Your task to perform on an android device: Show the shopping cart on walmart.com. Add usb-a to the cart on walmart.com, then select checkout. Image 0: 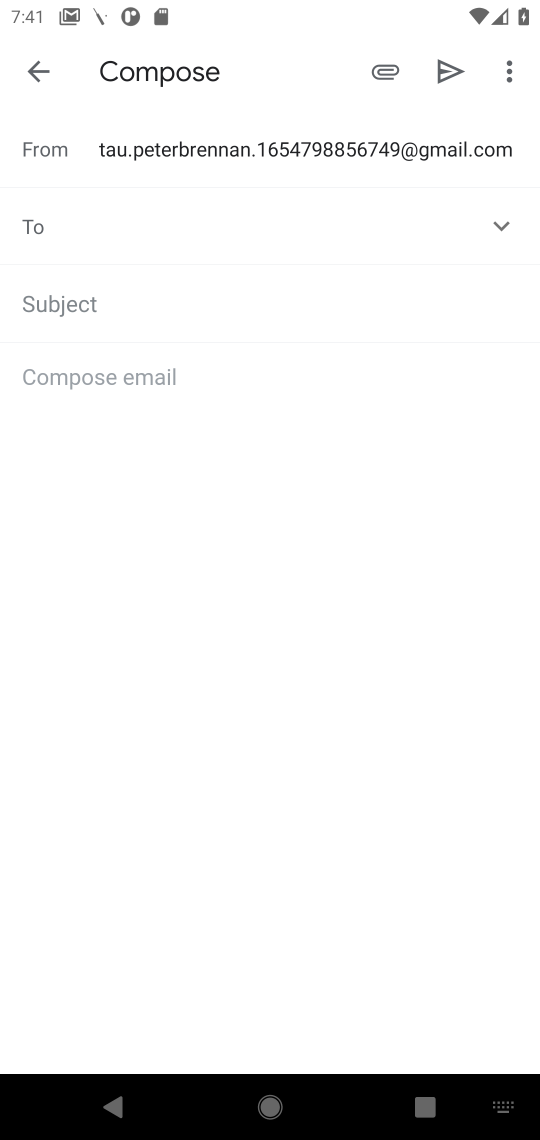
Step 0: press home button
Your task to perform on an android device: Show the shopping cart on walmart.com. Add usb-a to the cart on walmart.com, then select checkout. Image 1: 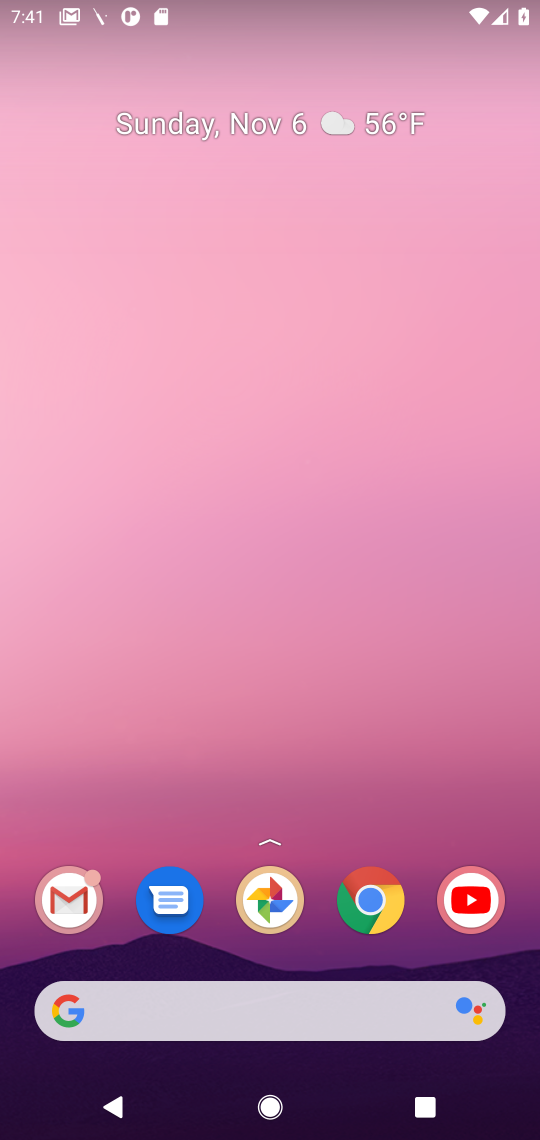
Step 1: drag from (302, 972) to (406, 176)
Your task to perform on an android device: Show the shopping cart on walmart.com. Add usb-a to the cart on walmart.com, then select checkout. Image 2: 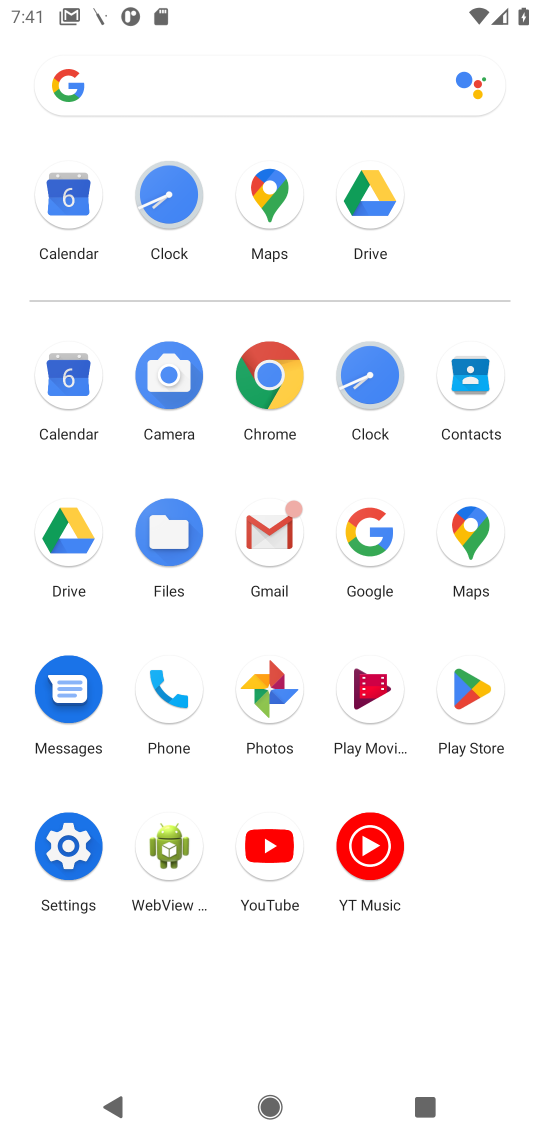
Step 2: click (278, 376)
Your task to perform on an android device: Show the shopping cart on walmart.com. Add usb-a to the cart on walmart.com, then select checkout. Image 3: 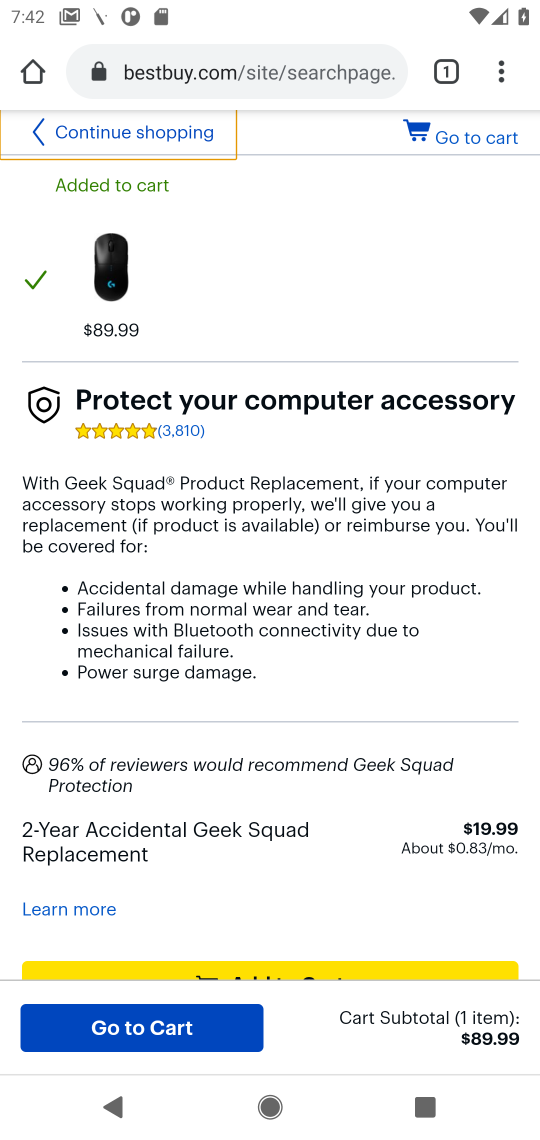
Step 3: click (283, 66)
Your task to perform on an android device: Show the shopping cart on walmart.com. Add usb-a to the cart on walmart.com, then select checkout. Image 4: 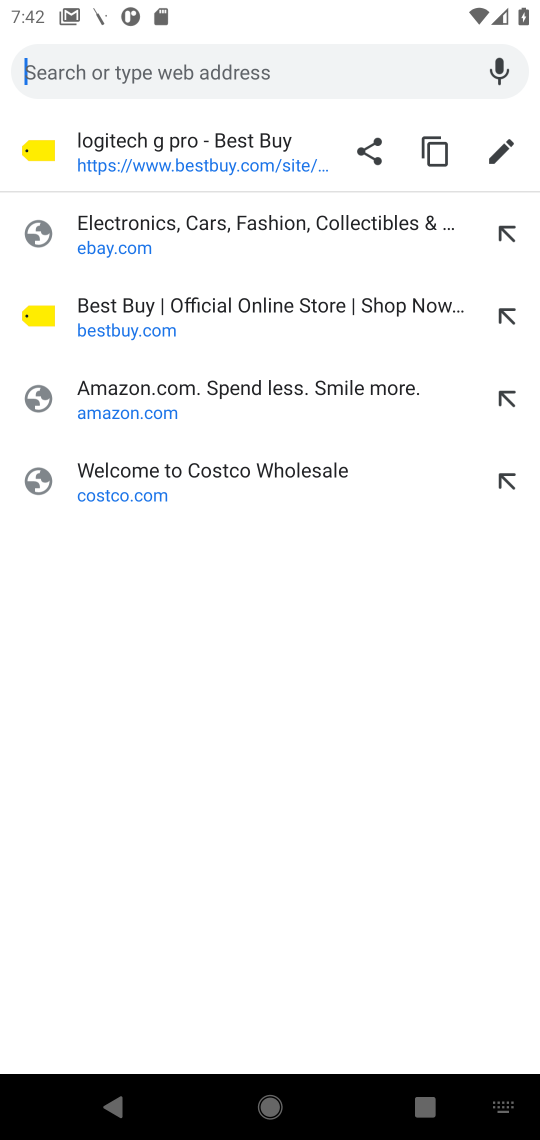
Step 4: type "walmart.com"
Your task to perform on an android device: Show the shopping cart on walmart.com. Add usb-a to the cart on walmart.com, then select checkout. Image 5: 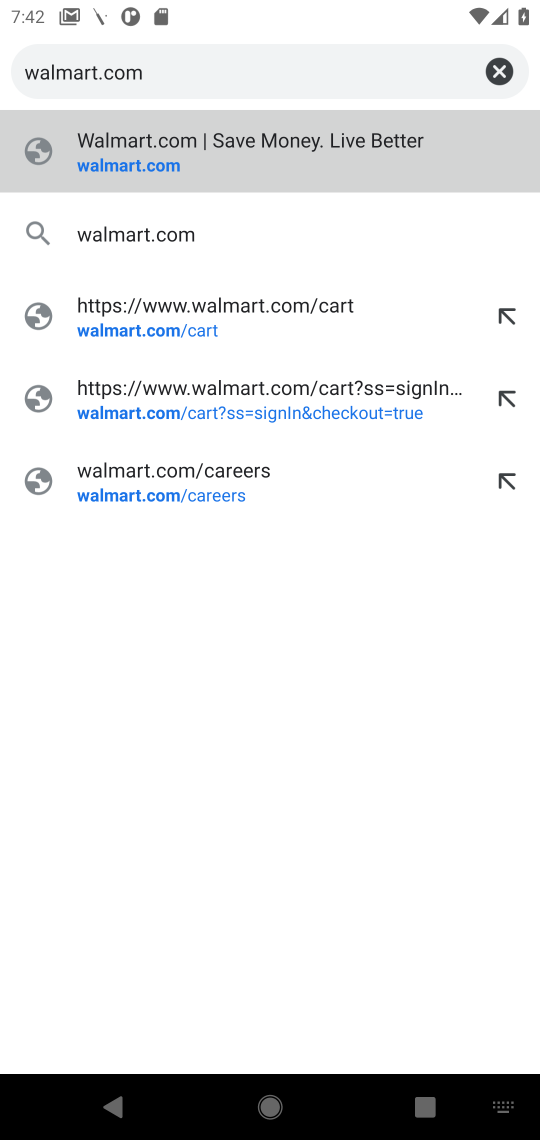
Step 5: press enter
Your task to perform on an android device: Show the shopping cart on walmart.com. Add usb-a to the cart on walmart.com, then select checkout. Image 6: 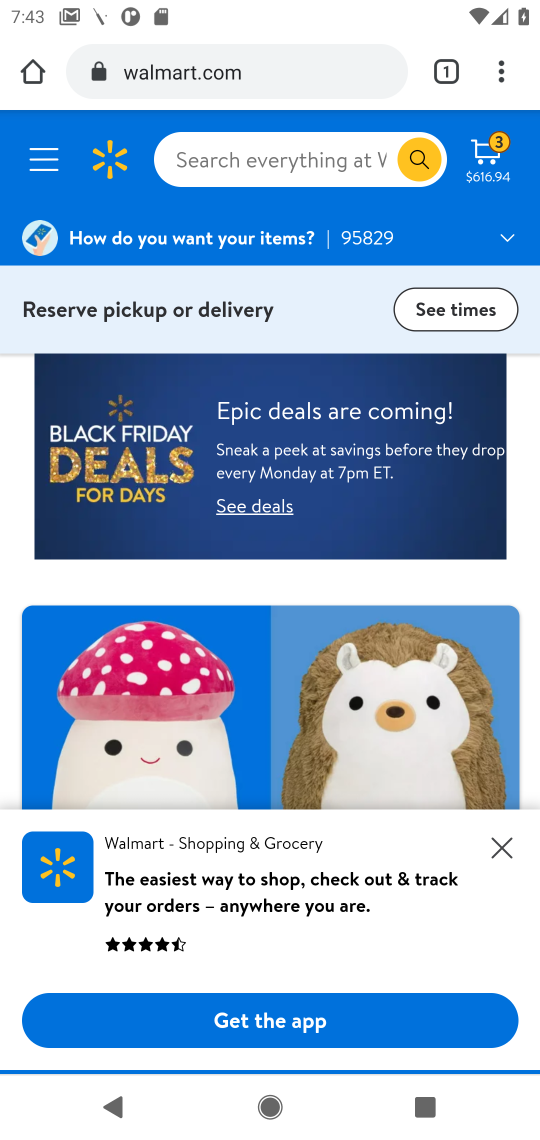
Step 6: click (491, 152)
Your task to perform on an android device: Show the shopping cart on walmart.com. Add usb-a to the cart on walmart.com, then select checkout. Image 7: 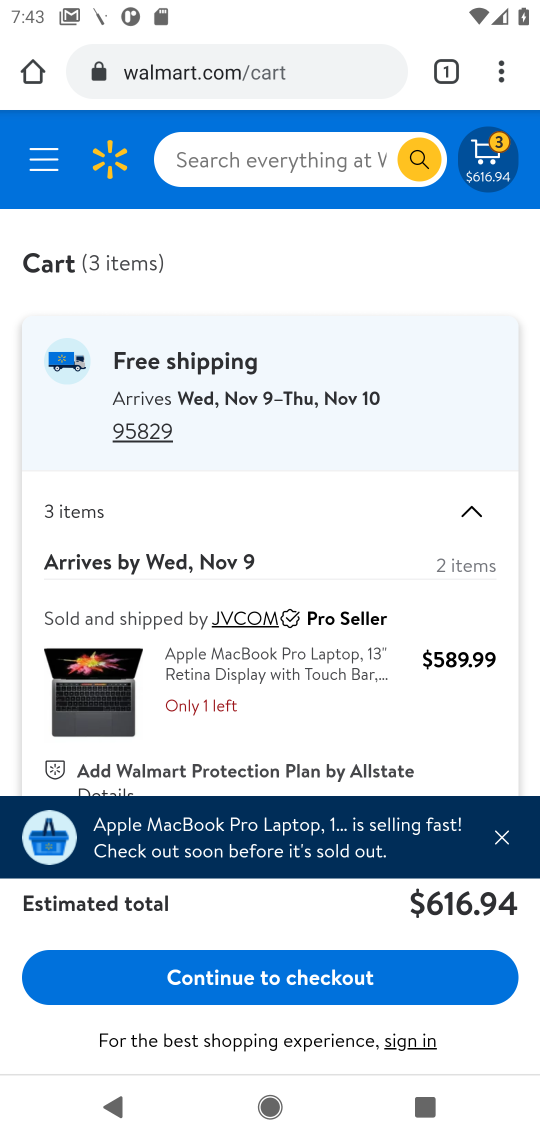
Step 7: click (283, 156)
Your task to perform on an android device: Show the shopping cart on walmart.com. Add usb-a to the cart on walmart.com, then select checkout. Image 8: 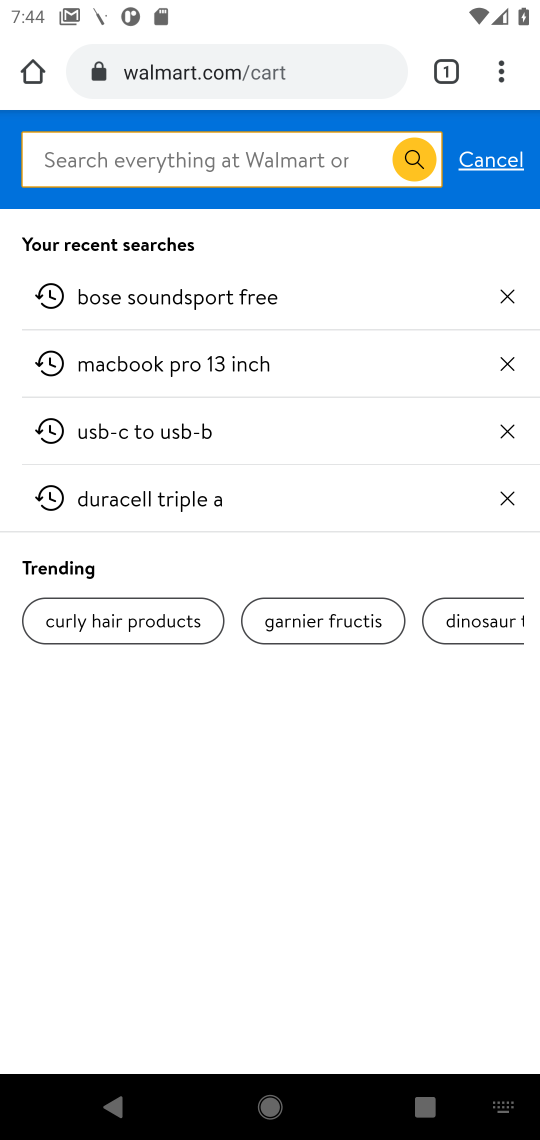
Step 8: type "usb-a"
Your task to perform on an android device: Show the shopping cart on walmart.com. Add usb-a to the cart on walmart.com, then select checkout. Image 9: 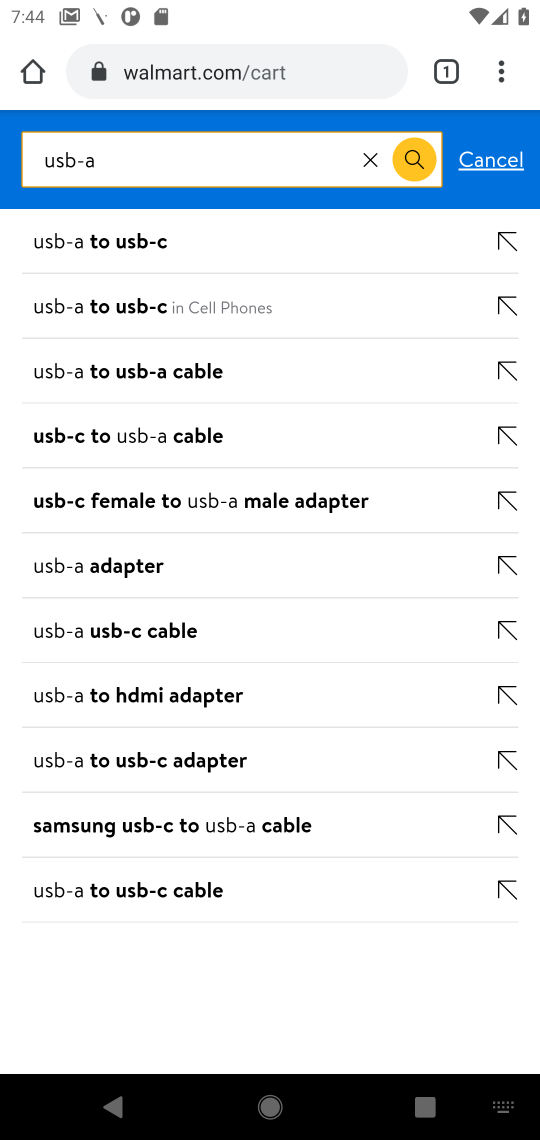
Step 9: press enter
Your task to perform on an android device: Show the shopping cart on walmart.com. Add usb-a to the cart on walmart.com, then select checkout. Image 10: 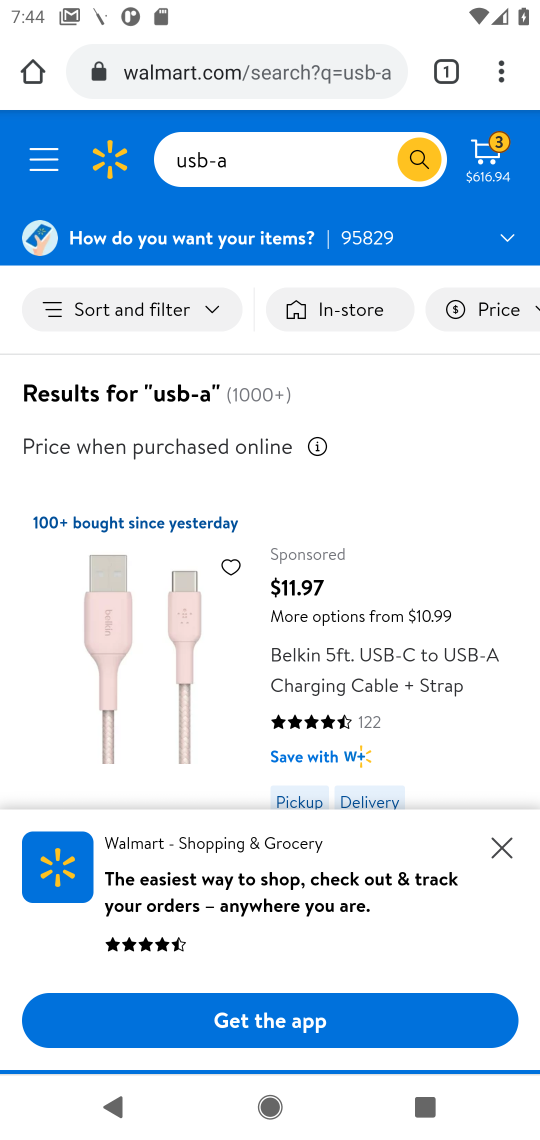
Step 10: drag from (396, 780) to (304, 99)
Your task to perform on an android device: Show the shopping cart on walmart.com. Add usb-a to the cart on walmart.com, then select checkout. Image 11: 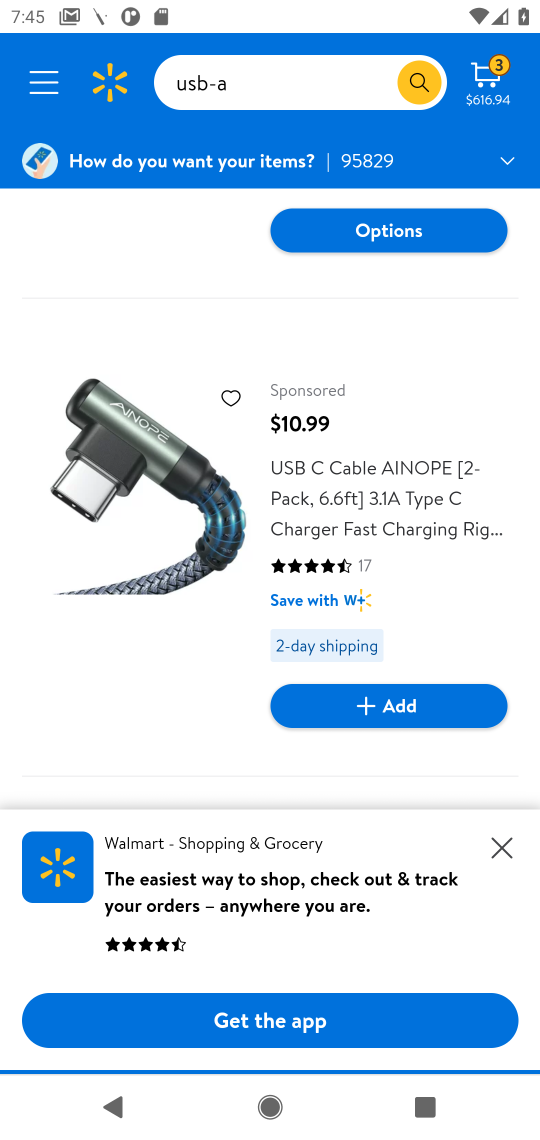
Step 11: drag from (158, 697) to (187, 189)
Your task to perform on an android device: Show the shopping cart on walmart.com. Add usb-a to the cart on walmart.com, then select checkout. Image 12: 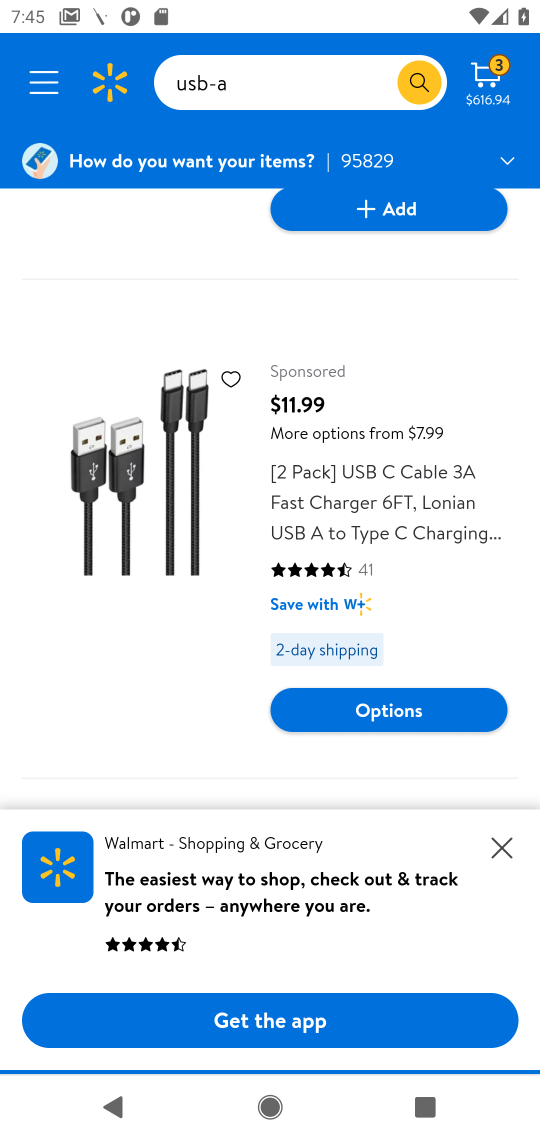
Step 12: drag from (310, 761) to (383, 293)
Your task to perform on an android device: Show the shopping cart on walmart.com. Add usb-a to the cart on walmart.com, then select checkout. Image 13: 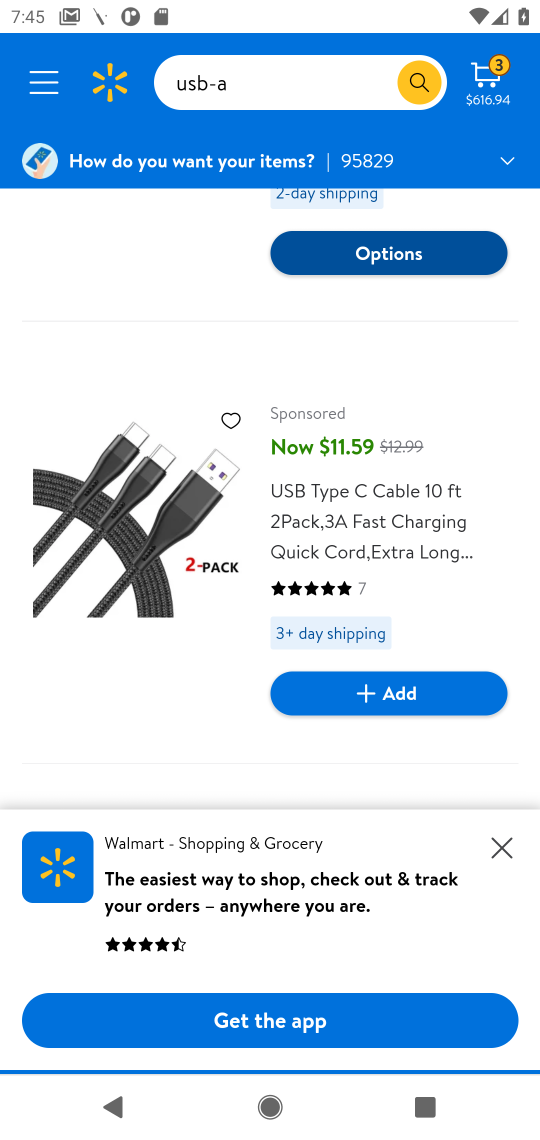
Step 13: drag from (349, 731) to (379, 306)
Your task to perform on an android device: Show the shopping cart on walmart.com. Add usb-a to the cart on walmart.com, then select checkout. Image 14: 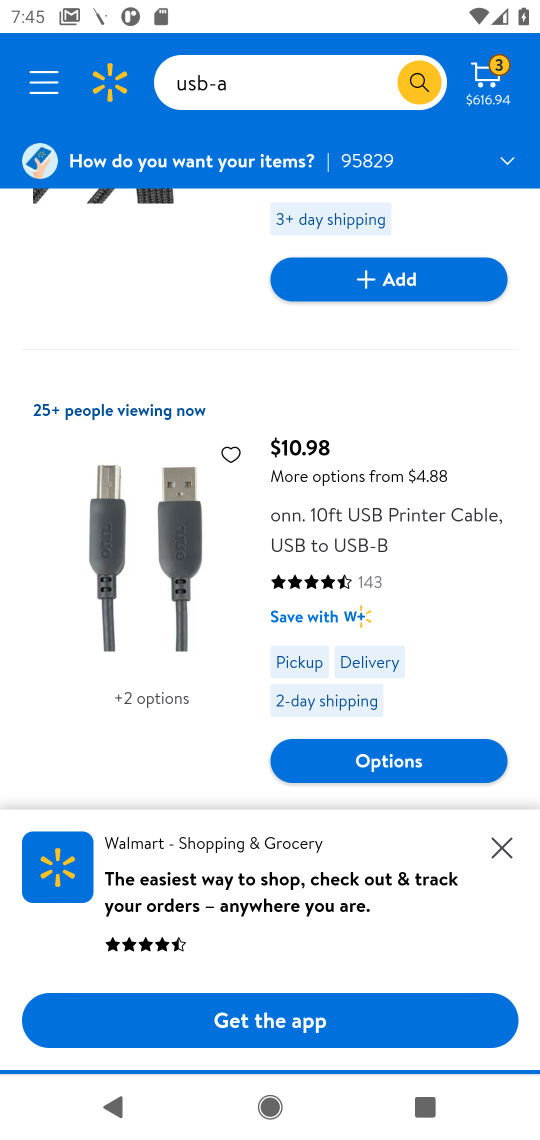
Step 14: drag from (388, 673) to (400, 214)
Your task to perform on an android device: Show the shopping cart on walmart.com. Add usb-a to the cart on walmart.com, then select checkout. Image 15: 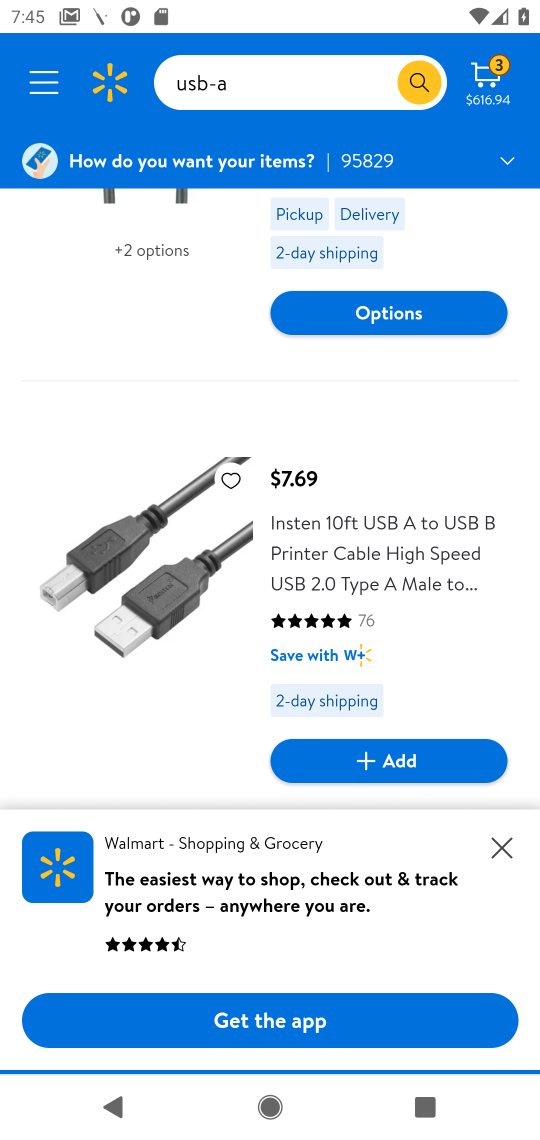
Step 15: click (393, 763)
Your task to perform on an android device: Show the shopping cart on walmart.com. Add usb-a to the cart on walmart.com, then select checkout. Image 16: 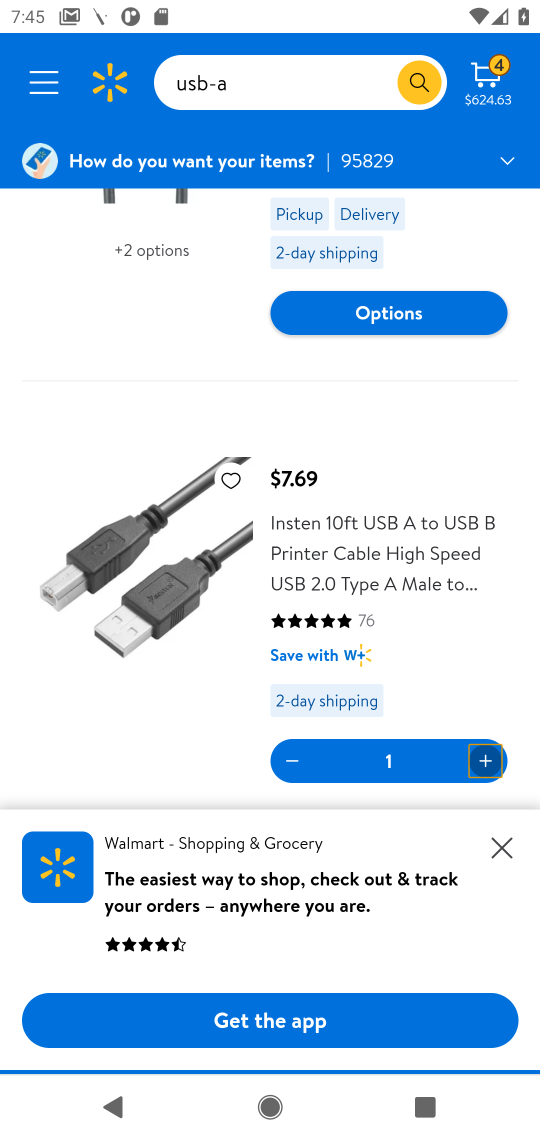
Step 16: click (405, 548)
Your task to perform on an android device: Show the shopping cart on walmart.com. Add usb-a to the cart on walmart.com, then select checkout. Image 17: 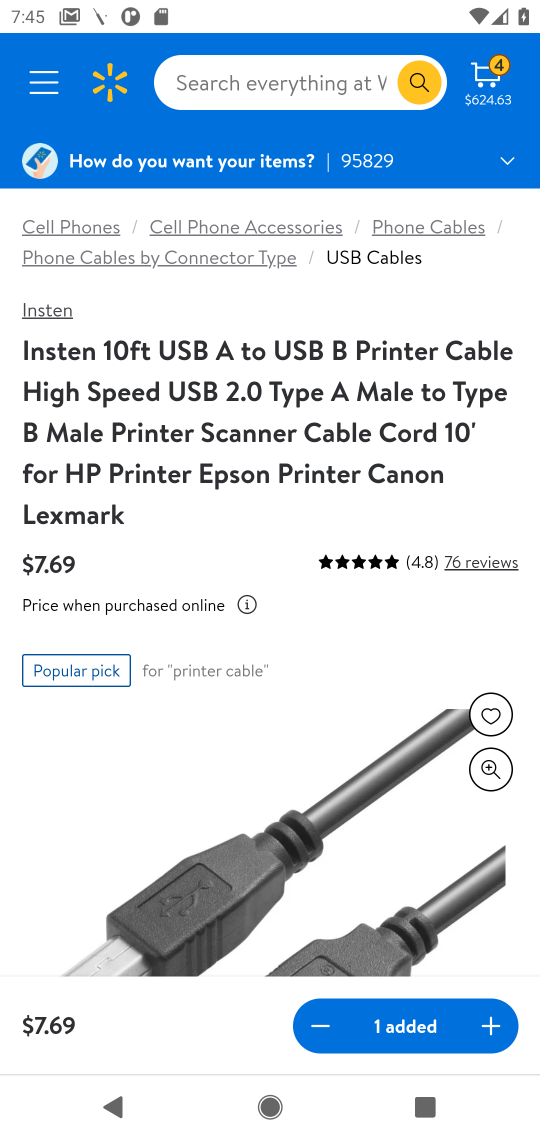
Step 17: drag from (387, 877) to (331, 350)
Your task to perform on an android device: Show the shopping cart on walmart.com. Add usb-a to the cart on walmart.com, then select checkout. Image 18: 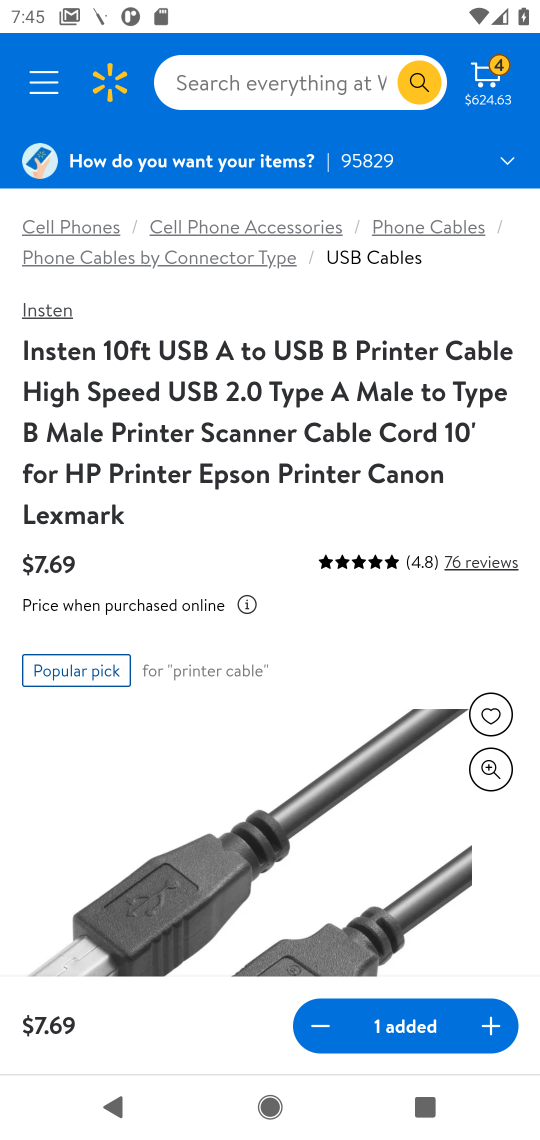
Step 18: drag from (192, 826) to (281, 458)
Your task to perform on an android device: Show the shopping cart on walmart.com. Add usb-a to the cart on walmart.com, then select checkout. Image 19: 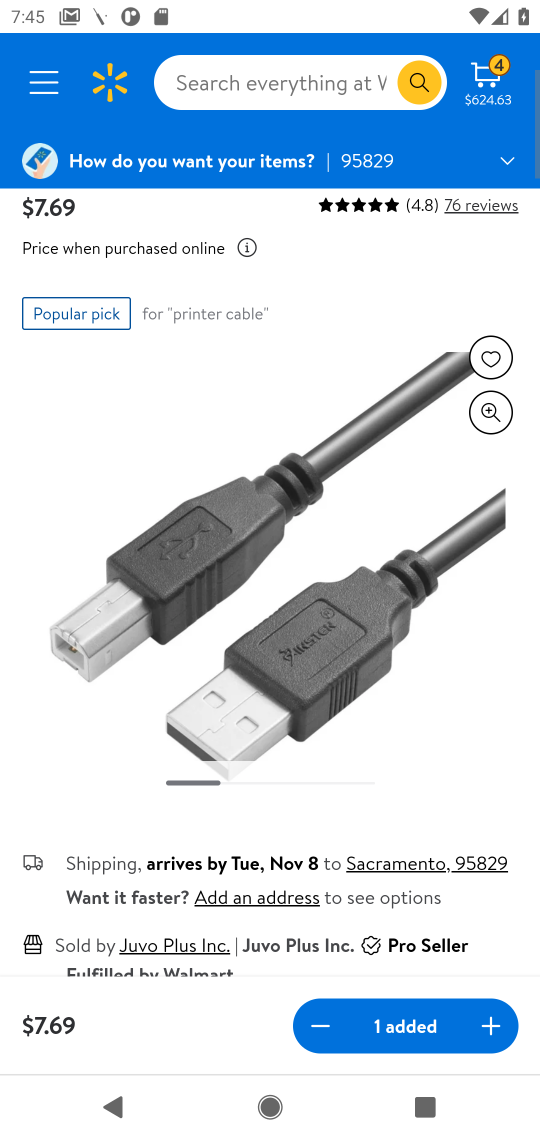
Step 19: drag from (205, 842) to (332, 463)
Your task to perform on an android device: Show the shopping cart on walmart.com. Add usb-a to the cart on walmart.com, then select checkout. Image 20: 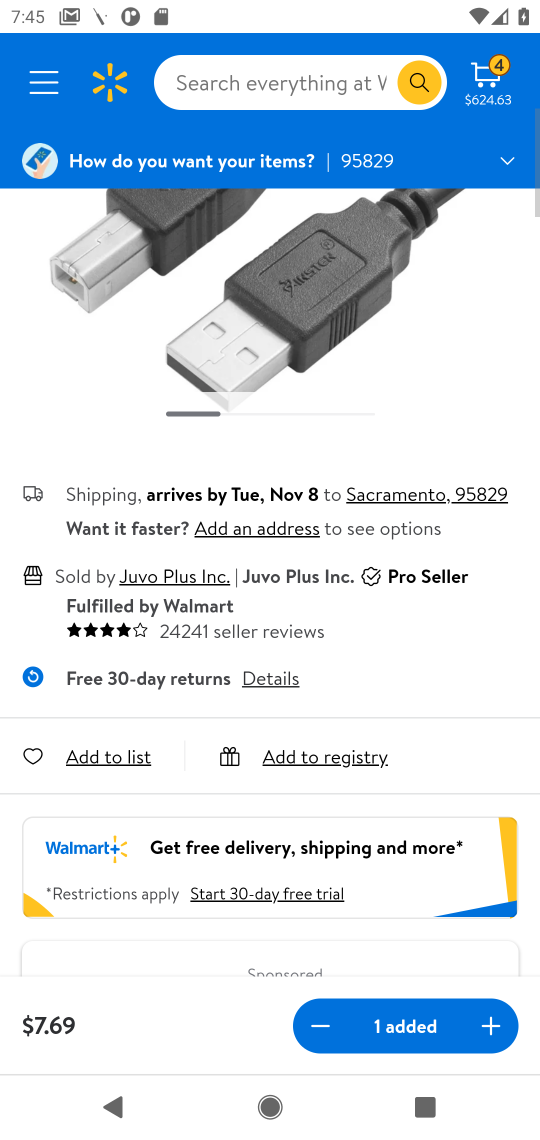
Step 20: drag from (275, 856) to (305, 475)
Your task to perform on an android device: Show the shopping cart on walmart.com. Add usb-a to the cart on walmart.com, then select checkout. Image 21: 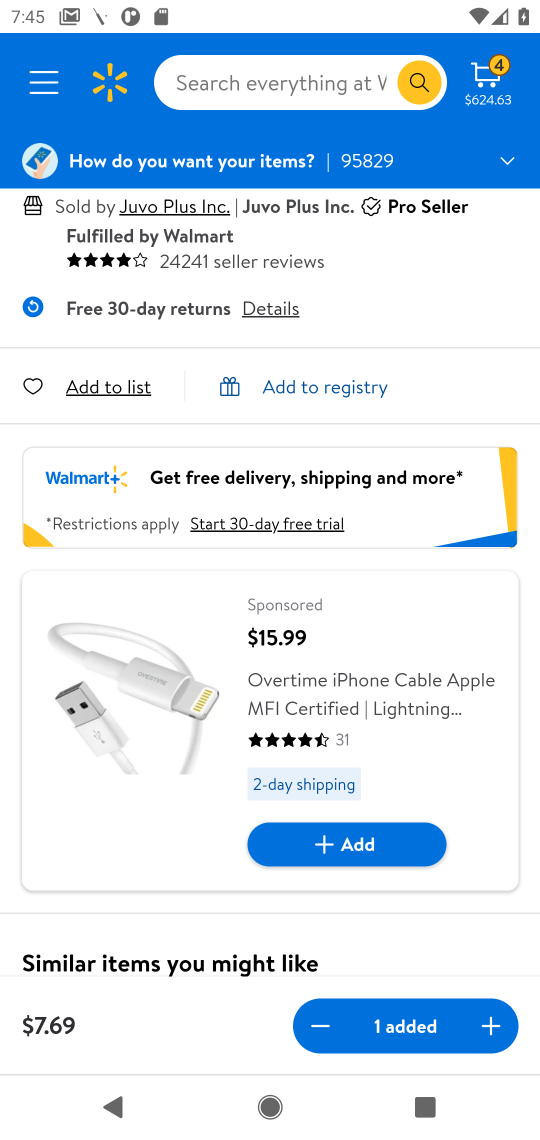
Step 21: drag from (414, 326) to (380, 929)
Your task to perform on an android device: Show the shopping cart on walmart.com. Add usb-a to the cart on walmart.com, then select checkout. Image 22: 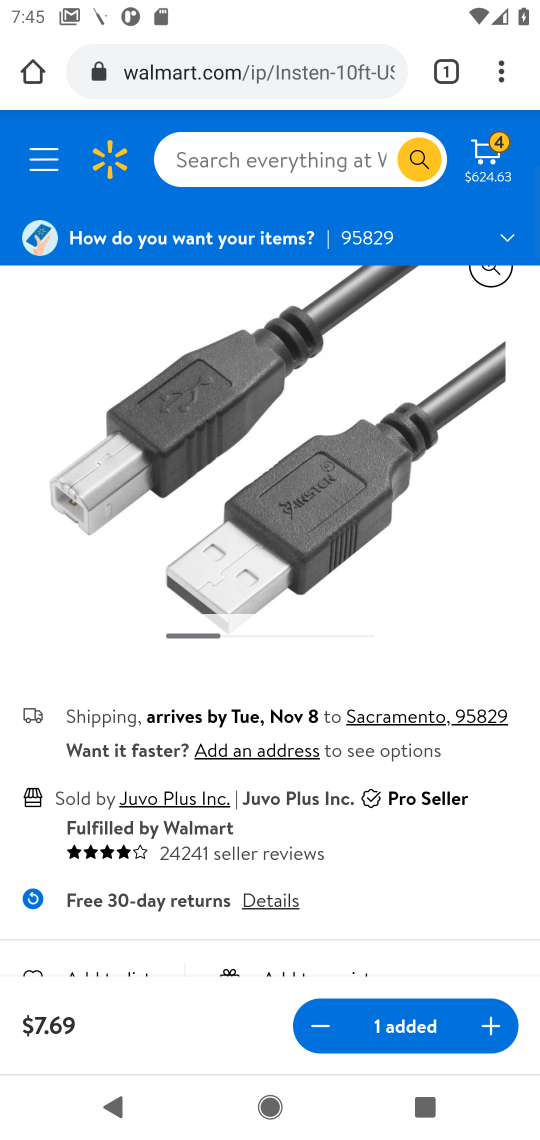
Step 22: drag from (388, 539) to (394, 779)
Your task to perform on an android device: Show the shopping cart on walmart.com. Add usb-a to the cart on walmart.com, then select checkout. Image 23: 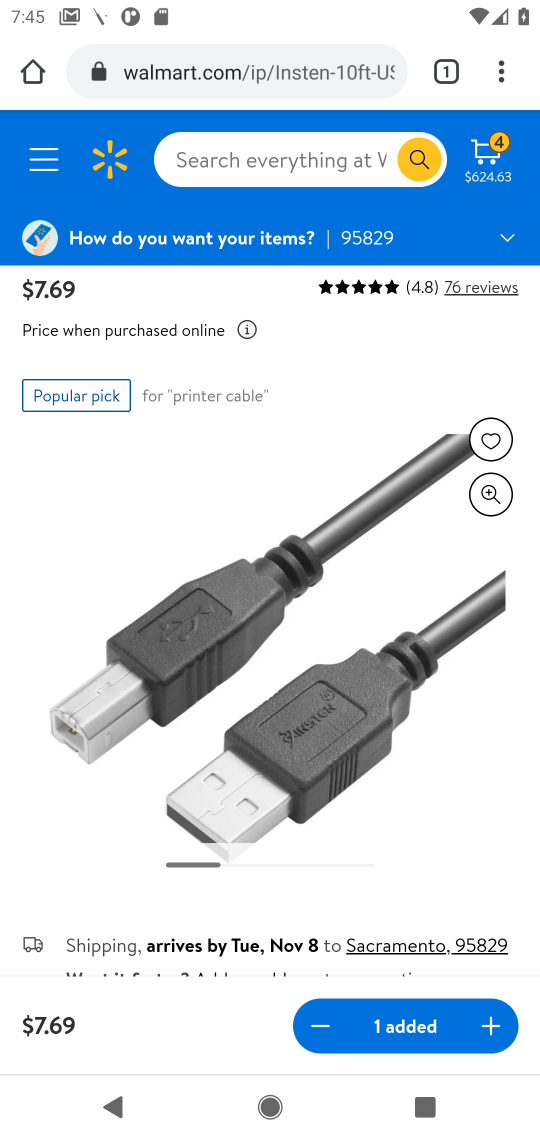
Step 23: click (490, 167)
Your task to perform on an android device: Show the shopping cart on walmart.com. Add usb-a to the cart on walmart.com, then select checkout. Image 24: 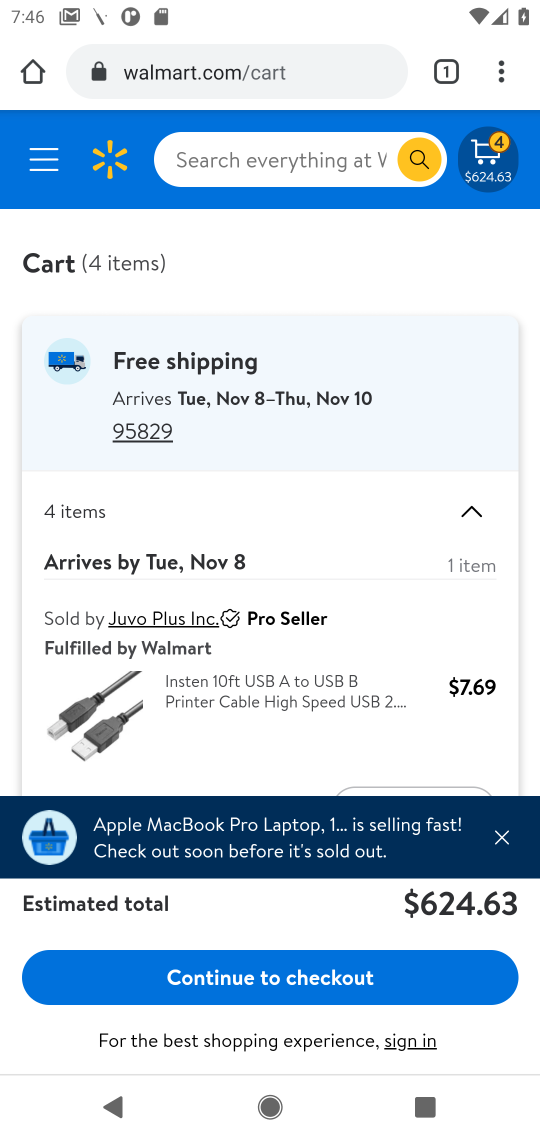
Step 24: task complete